Your task to perform on an android device: What's the weather going to be tomorrow? Image 0: 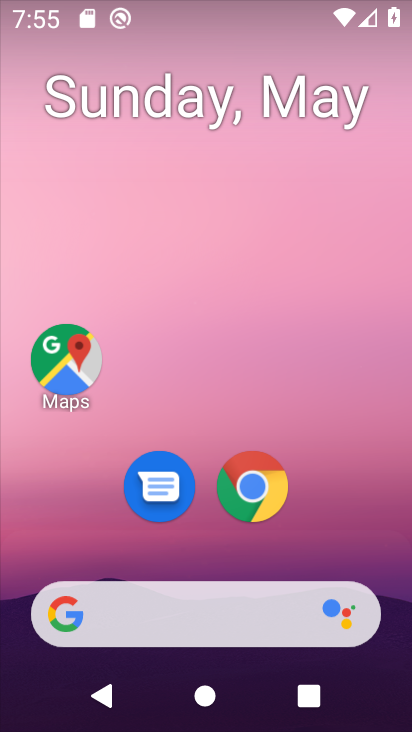
Step 0: click (256, 491)
Your task to perform on an android device: What's the weather going to be tomorrow? Image 1: 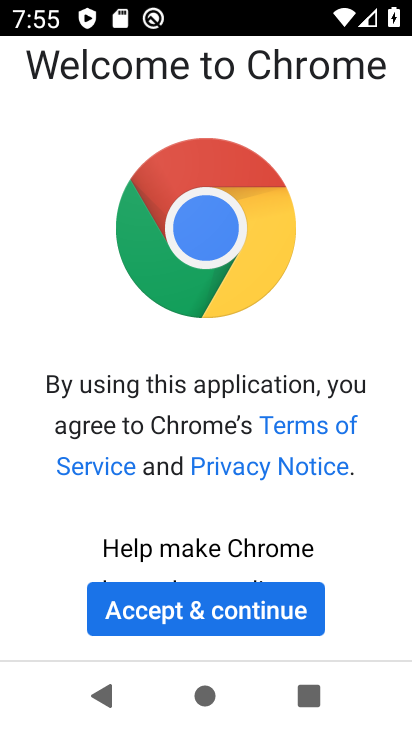
Step 1: click (151, 615)
Your task to perform on an android device: What's the weather going to be tomorrow? Image 2: 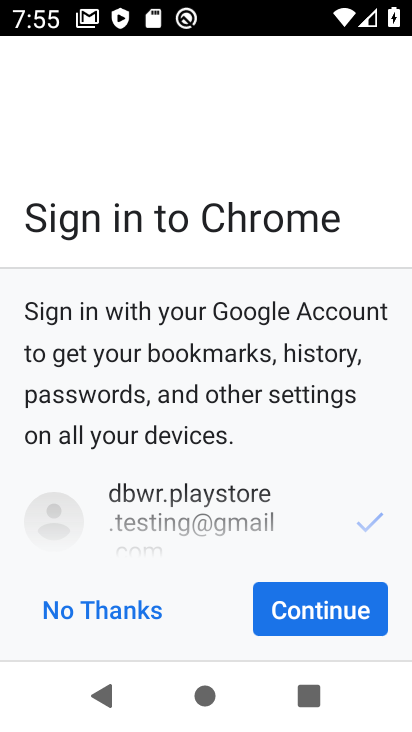
Step 2: click (332, 603)
Your task to perform on an android device: What's the weather going to be tomorrow? Image 3: 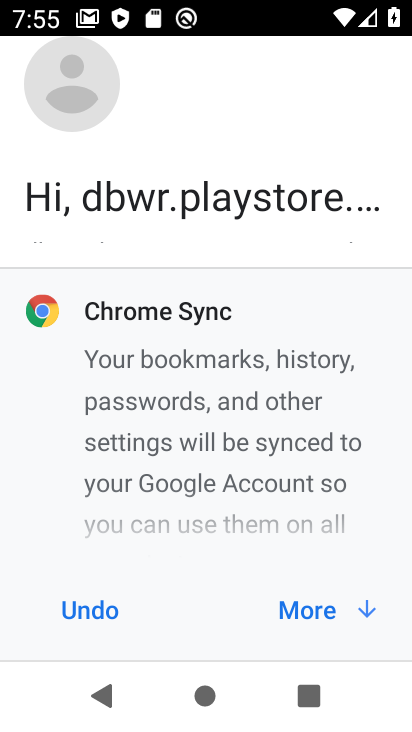
Step 3: click (304, 619)
Your task to perform on an android device: What's the weather going to be tomorrow? Image 4: 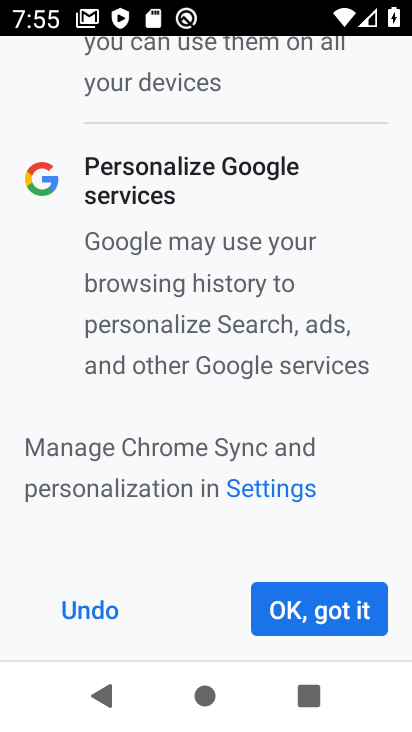
Step 4: click (305, 615)
Your task to perform on an android device: What's the weather going to be tomorrow? Image 5: 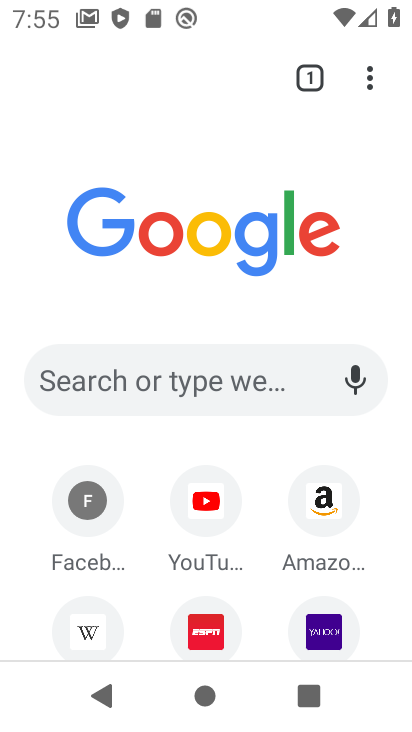
Step 5: click (193, 372)
Your task to perform on an android device: What's the weather going to be tomorrow? Image 6: 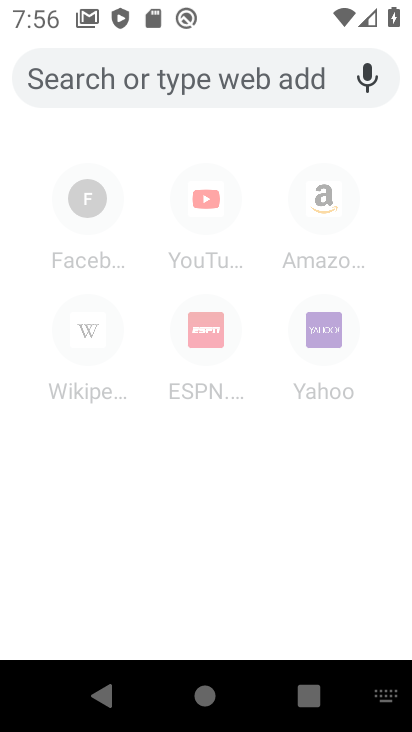
Step 6: type "whats the weather going to be tomorrow?"
Your task to perform on an android device: What's the weather going to be tomorrow? Image 7: 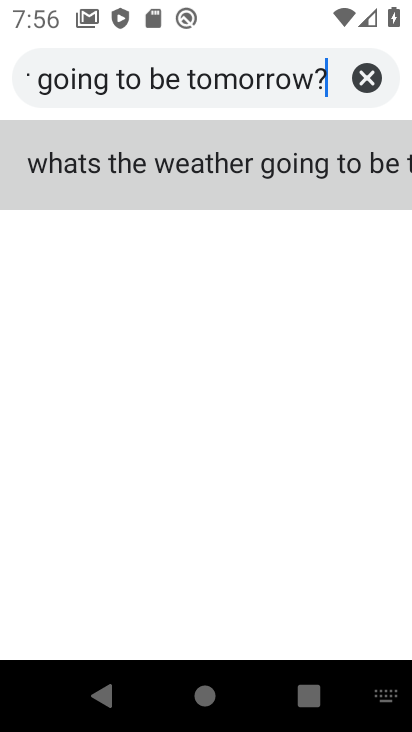
Step 7: click (187, 200)
Your task to perform on an android device: What's the weather going to be tomorrow? Image 8: 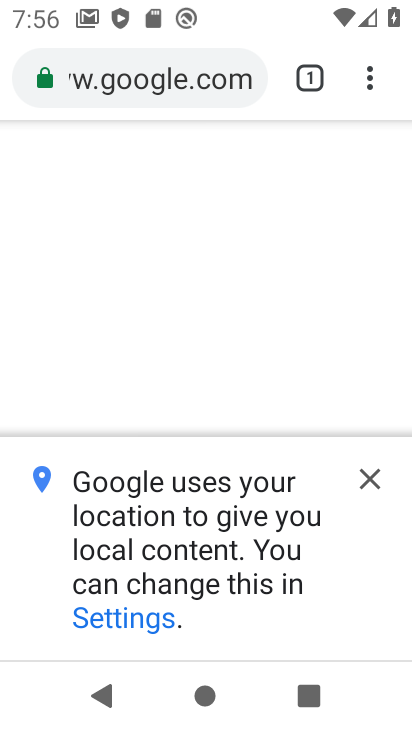
Step 8: click (362, 484)
Your task to perform on an android device: What's the weather going to be tomorrow? Image 9: 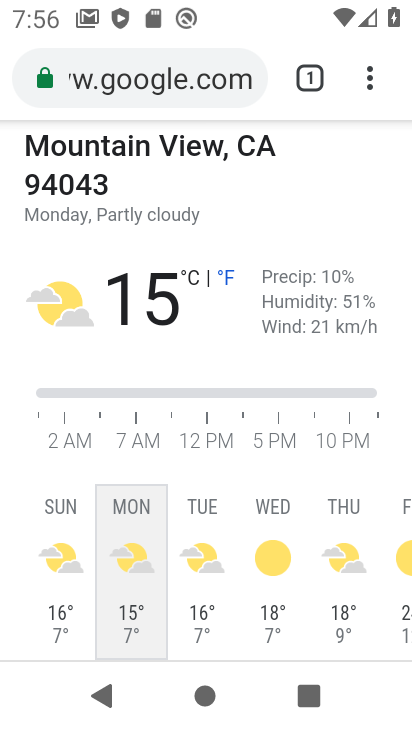
Step 9: task complete